Your task to perform on an android device: turn on priority inbox in the gmail app Image 0: 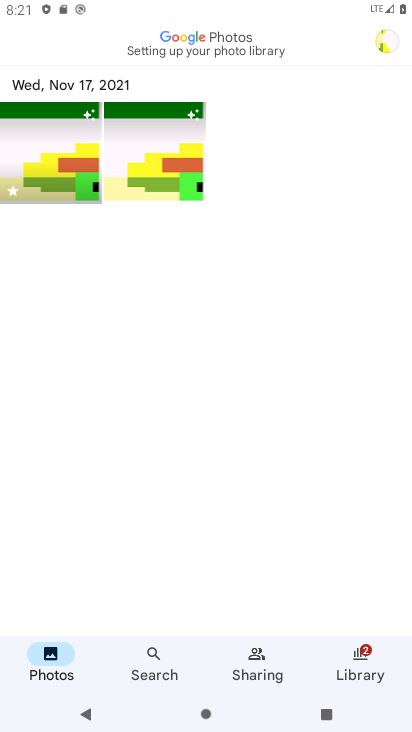
Step 0: press home button
Your task to perform on an android device: turn on priority inbox in the gmail app Image 1: 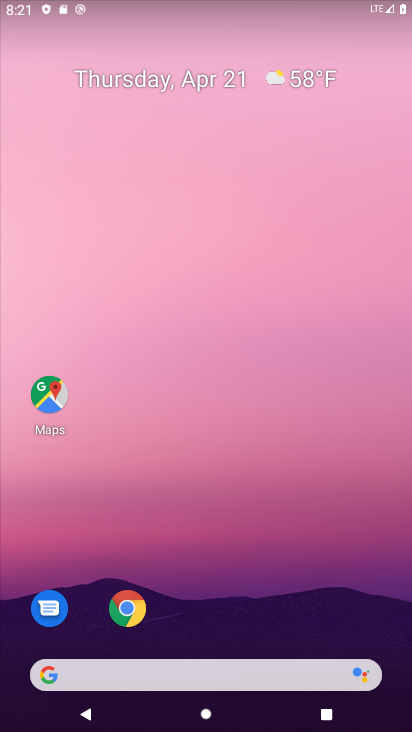
Step 1: drag from (225, 481) to (234, 123)
Your task to perform on an android device: turn on priority inbox in the gmail app Image 2: 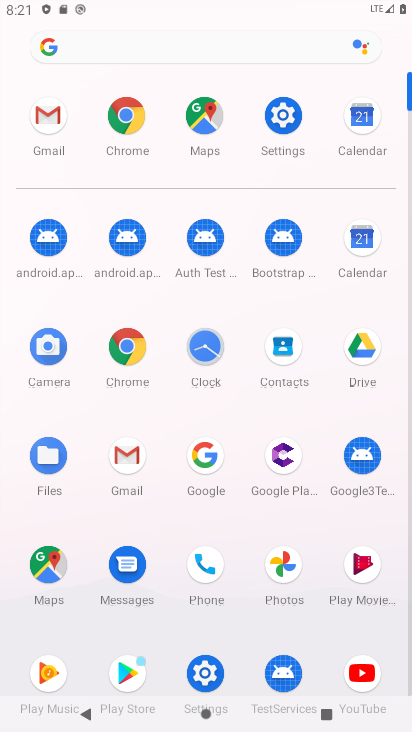
Step 2: click (56, 111)
Your task to perform on an android device: turn on priority inbox in the gmail app Image 3: 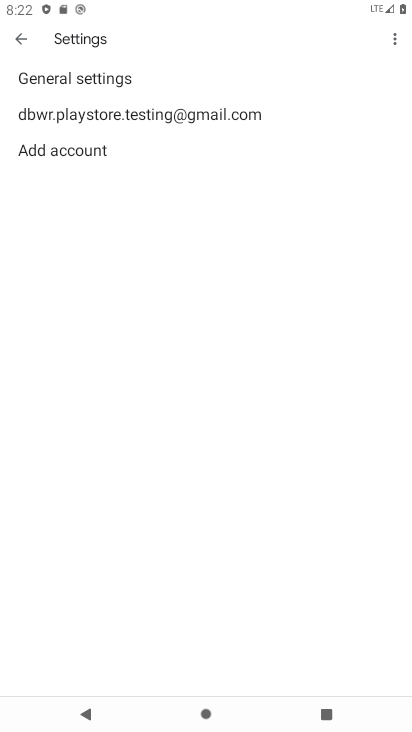
Step 3: click (59, 109)
Your task to perform on an android device: turn on priority inbox in the gmail app Image 4: 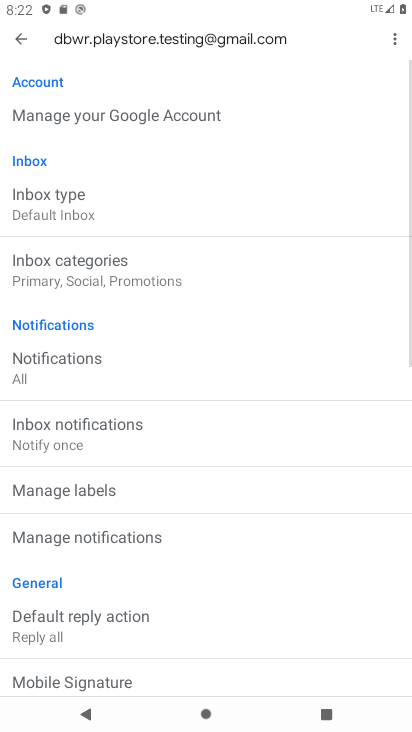
Step 4: click (61, 200)
Your task to perform on an android device: turn on priority inbox in the gmail app Image 5: 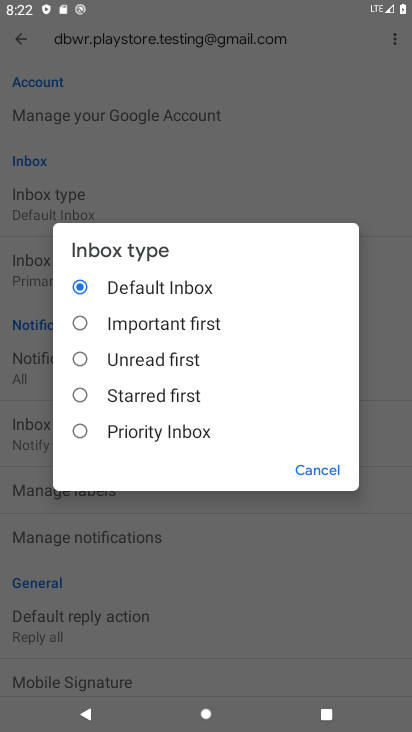
Step 5: click (83, 430)
Your task to perform on an android device: turn on priority inbox in the gmail app Image 6: 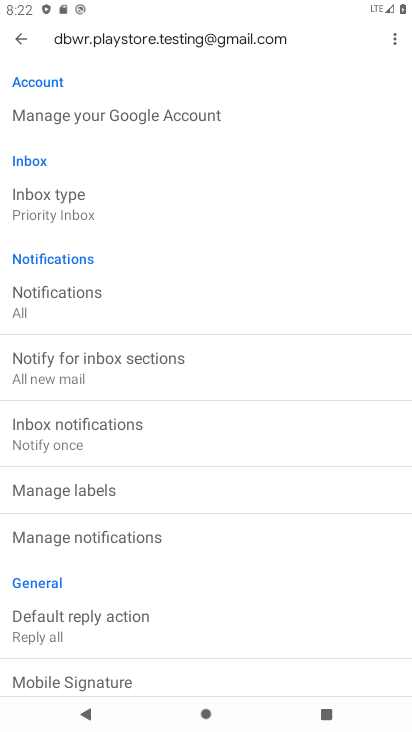
Step 6: task complete